Your task to perform on an android device: Set the phone to "Do not disturb". Image 0: 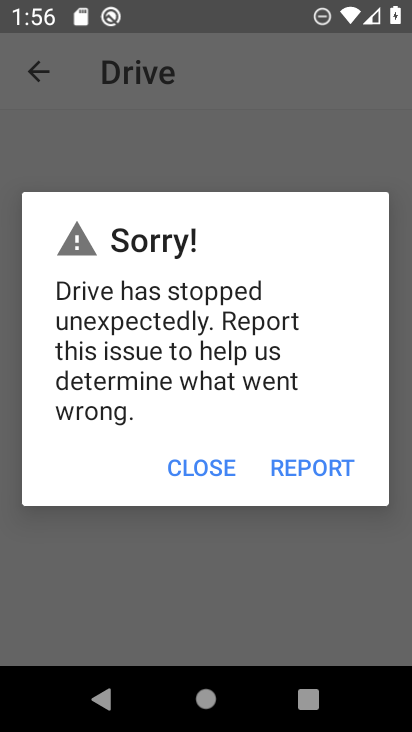
Step 0: click (204, 470)
Your task to perform on an android device: Set the phone to "Do not disturb". Image 1: 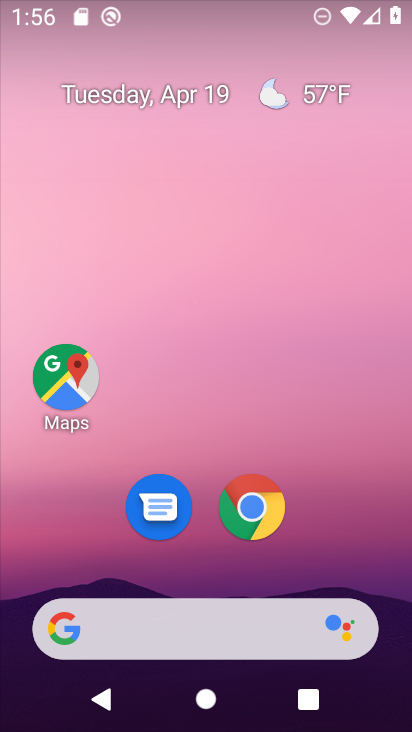
Step 1: drag from (335, 553) to (271, 101)
Your task to perform on an android device: Set the phone to "Do not disturb". Image 2: 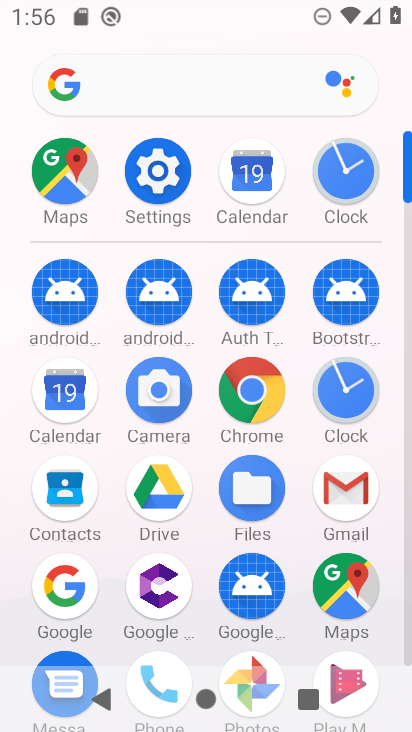
Step 2: click (153, 198)
Your task to perform on an android device: Set the phone to "Do not disturb". Image 3: 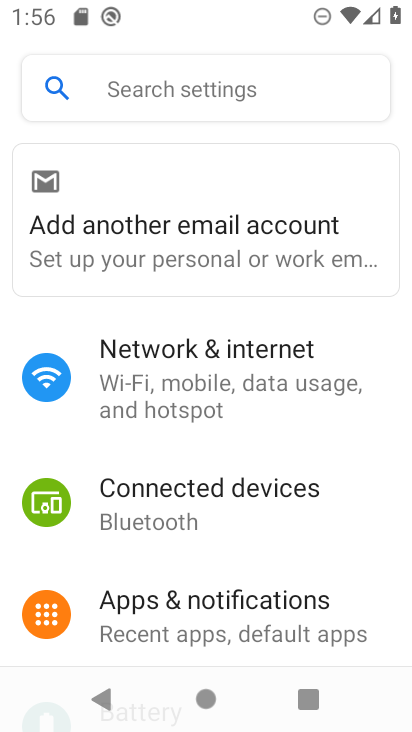
Step 3: drag from (249, 531) to (258, 259)
Your task to perform on an android device: Set the phone to "Do not disturb". Image 4: 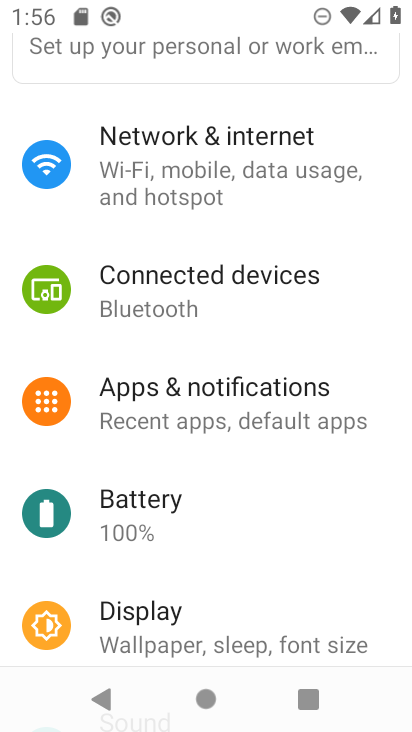
Step 4: drag from (239, 592) to (343, 115)
Your task to perform on an android device: Set the phone to "Do not disturb". Image 5: 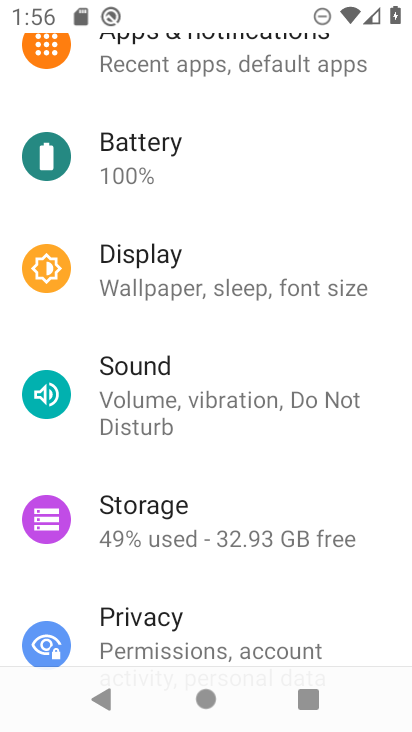
Step 5: click (225, 443)
Your task to perform on an android device: Set the phone to "Do not disturb". Image 6: 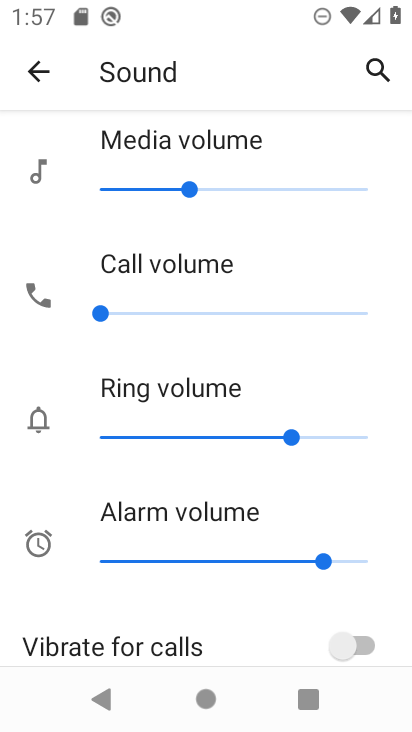
Step 6: drag from (161, 588) to (135, 152)
Your task to perform on an android device: Set the phone to "Do not disturb". Image 7: 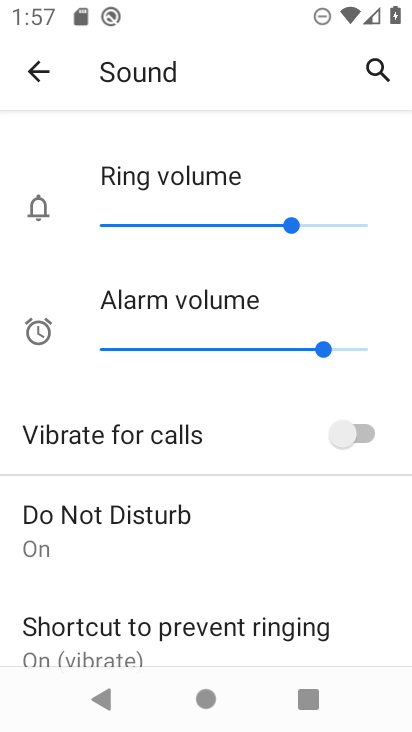
Step 7: click (187, 522)
Your task to perform on an android device: Set the phone to "Do not disturb". Image 8: 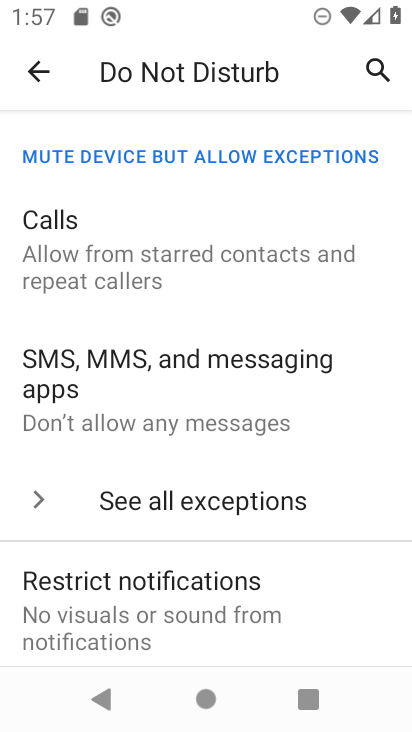
Step 8: task complete